Your task to perform on an android device: Go to display settings Image 0: 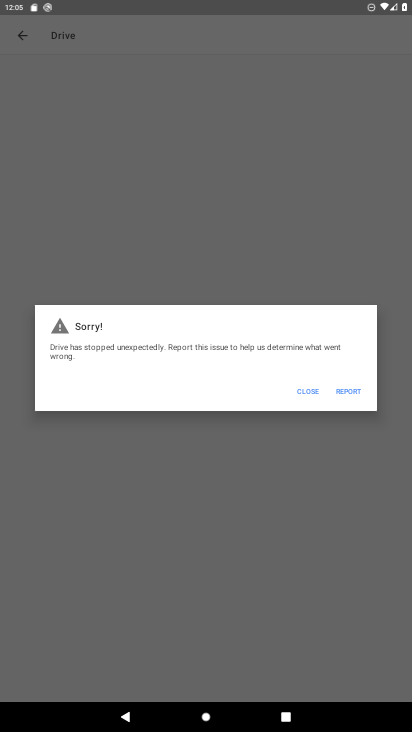
Step 0: click (313, 390)
Your task to perform on an android device: Go to display settings Image 1: 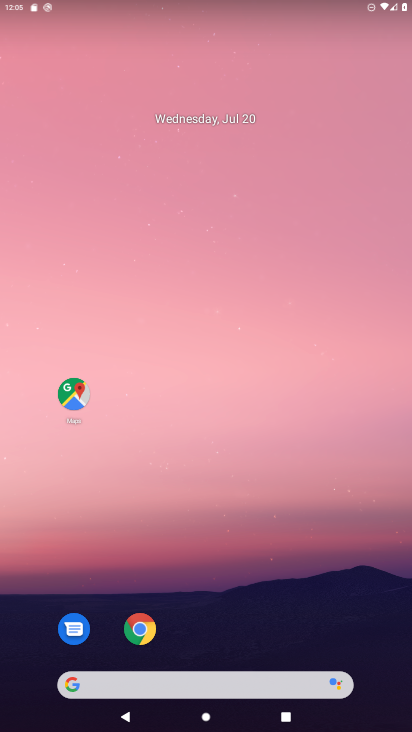
Step 1: drag from (187, 537) to (256, 2)
Your task to perform on an android device: Go to display settings Image 2: 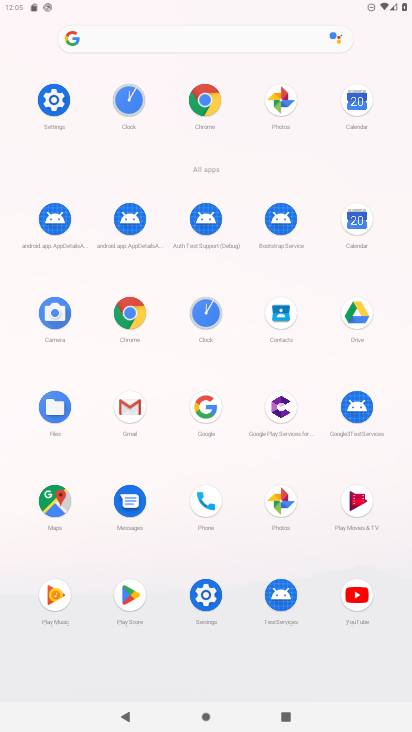
Step 2: click (196, 590)
Your task to perform on an android device: Go to display settings Image 3: 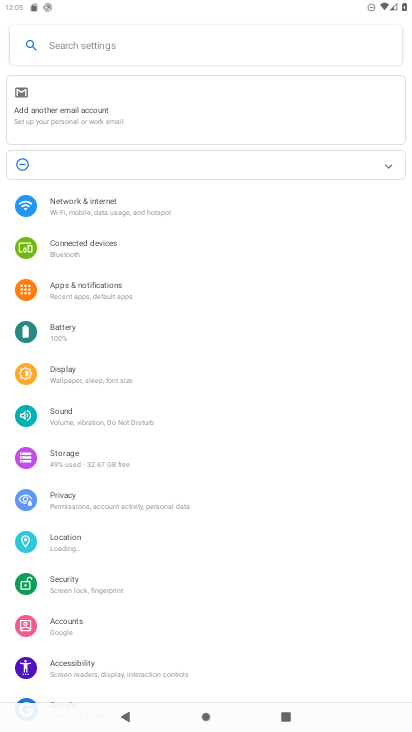
Step 3: drag from (75, 323) to (316, 35)
Your task to perform on an android device: Go to display settings Image 4: 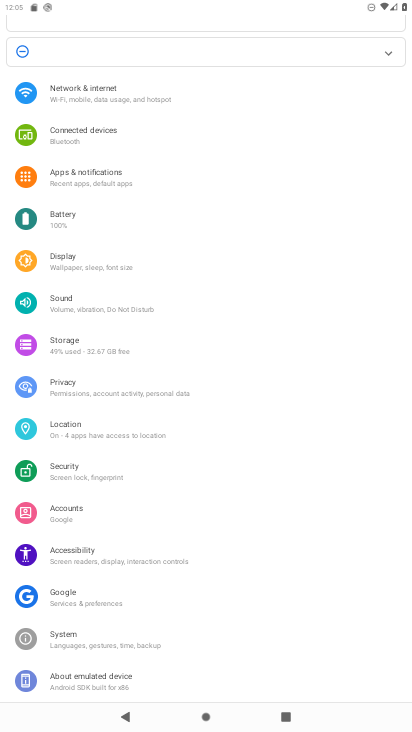
Step 4: click (71, 256)
Your task to perform on an android device: Go to display settings Image 5: 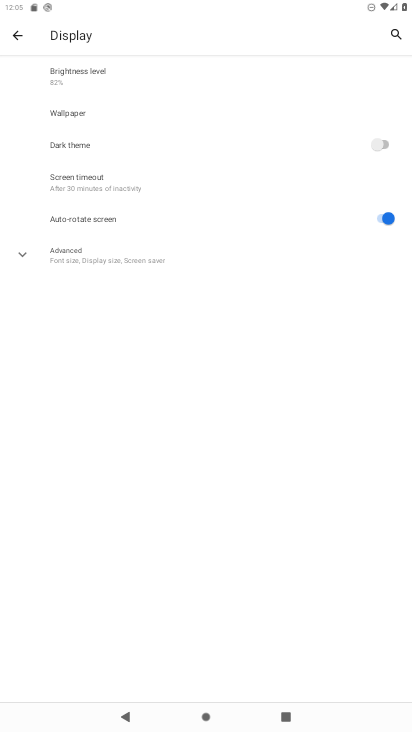
Step 5: task complete